Your task to perform on an android device: delete a single message in the gmail app Image 0: 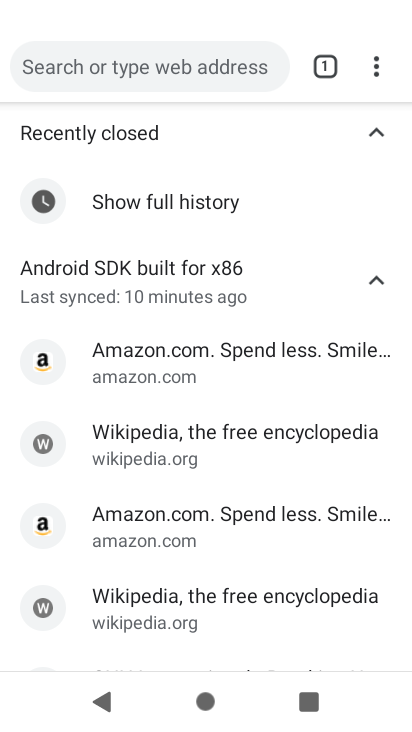
Step 0: press home button
Your task to perform on an android device: delete a single message in the gmail app Image 1: 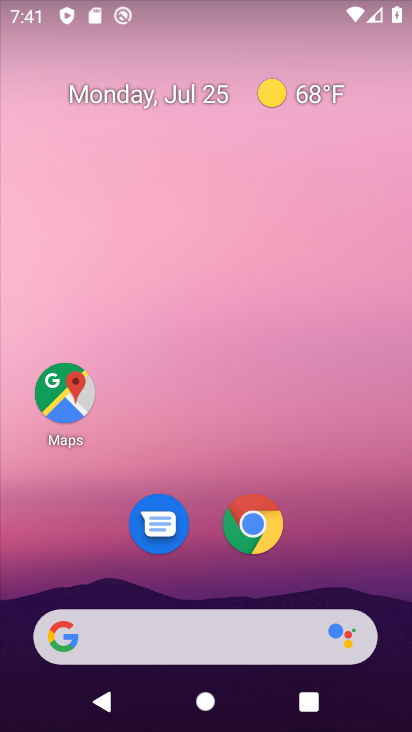
Step 1: drag from (322, 516) to (280, 38)
Your task to perform on an android device: delete a single message in the gmail app Image 2: 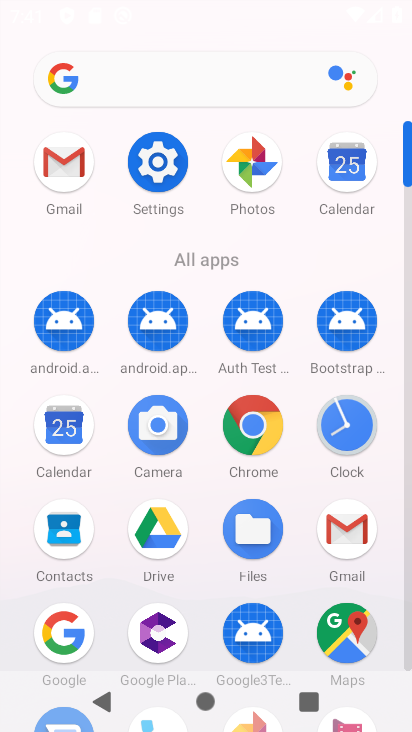
Step 2: click (67, 170)
Your task to perform on an android device: delete a single message in the gmail app Image 3: 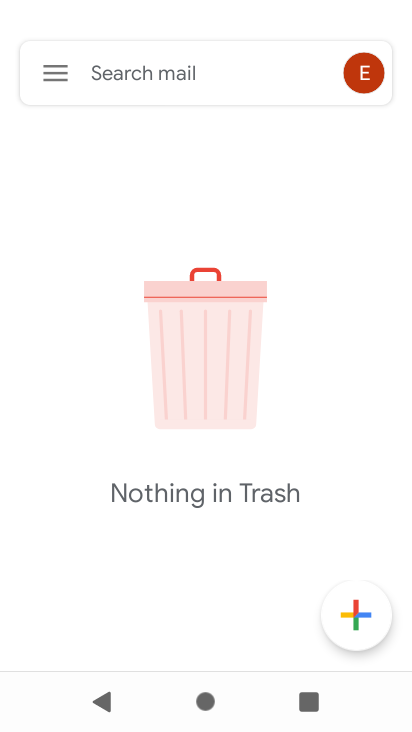
Step 3: click (55, 72)
Your task to perform on an android device: delete a single message in the gmail app Image 4: 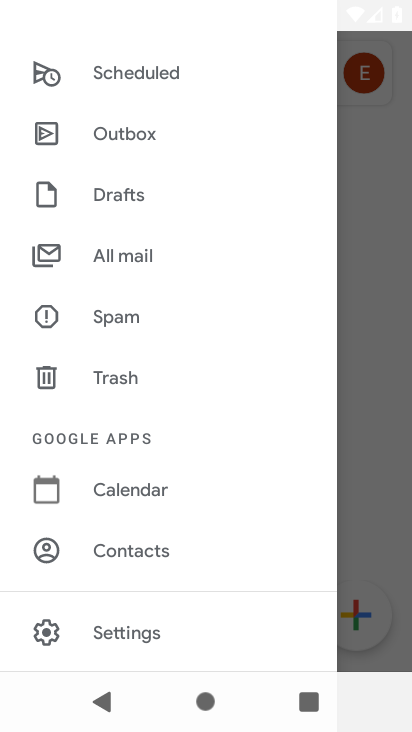
Step 4: click (122, 249)
Your task to perform on an android device: delete a single message in the gmail app Image 5: 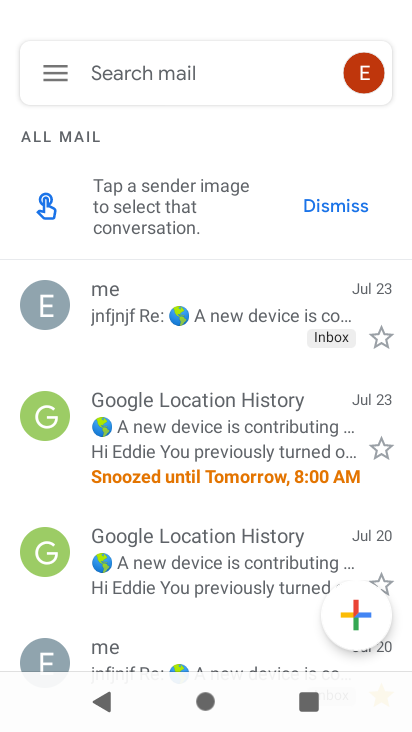
Step 5: click (146, 306)
Your task to perform on an android device: delete a single message in the gmail app Image 6: 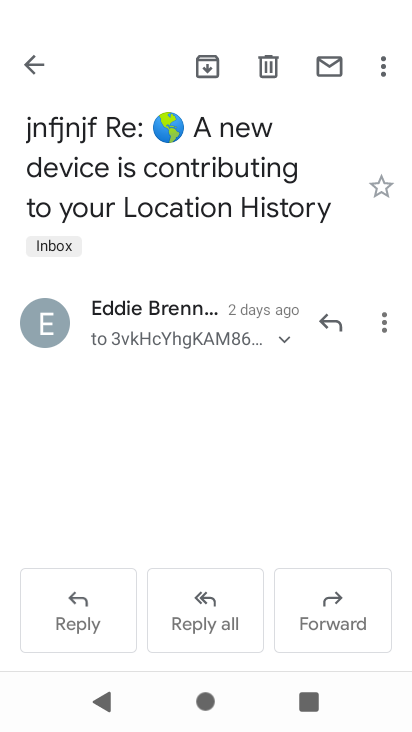
Step 6: click (266, 72)
Your task to perform on an android device: delete a single message in the gmail app Image 7: 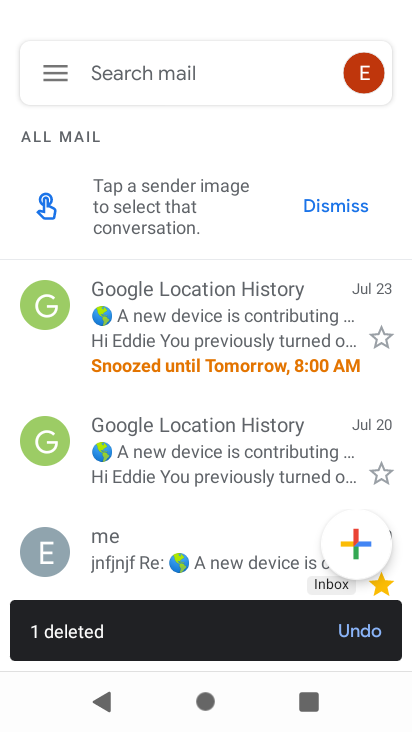
Step 7: task complete